Your task to perform on an android device: turn on wifi Image 0: 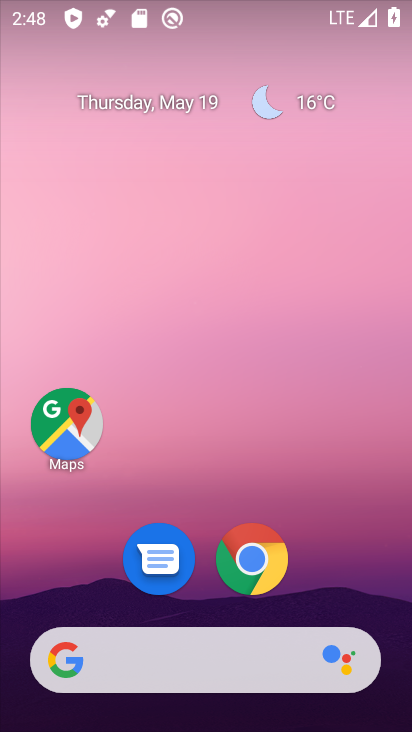
Step 0: drag from (208, 601) to (169, 102)
Your task to perform on an android device: turn on wifi Image 1: 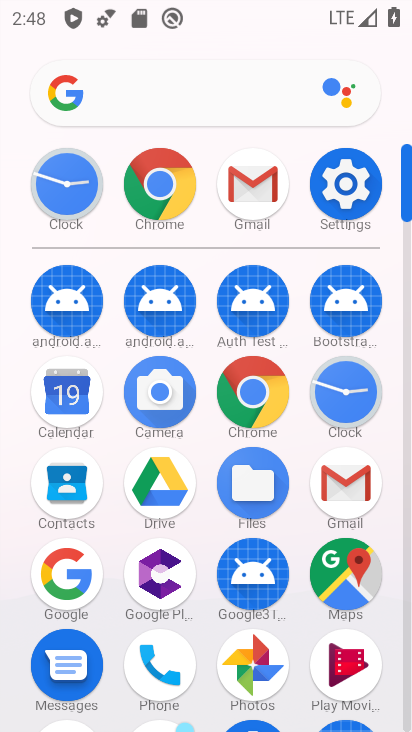
Step 1: click (330, 205)
Your task to perform on an android device: turn on wifi Image 2: 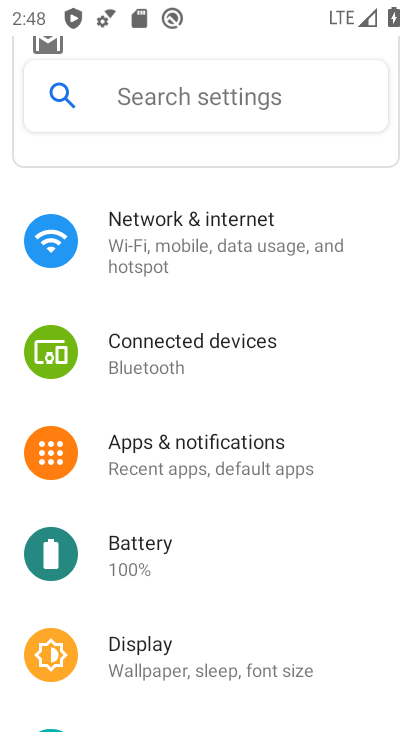
Step 2: click (234, 228)
Your task to perform on an android device: turn on wifi Image 3: 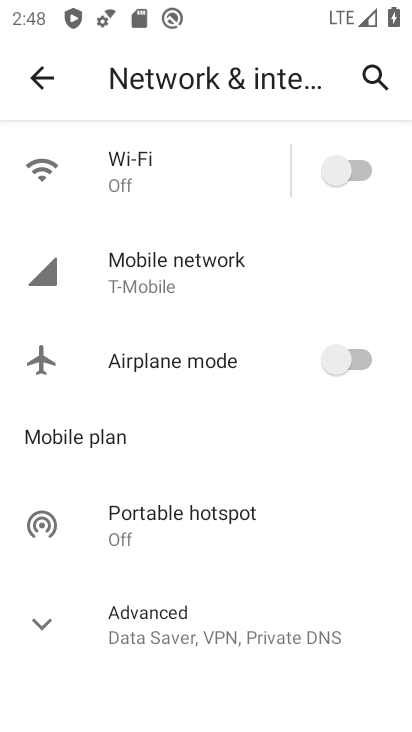
Step 3: click (369, 173)
Your task to perform on an android device: turn on wifi Image 4: 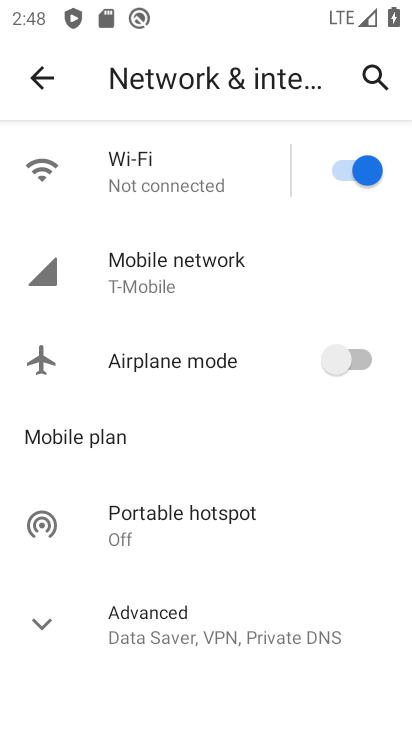
Step 4: task complete